Your task to perform on an android device: toggle pop-ups in chrome Image 0: 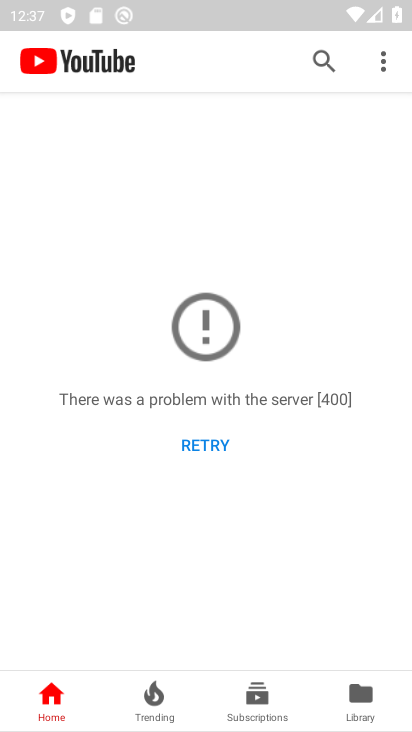
Step 0: press home button
Your task to perform on an android device: toggle pop-ups in chrome Image 1: 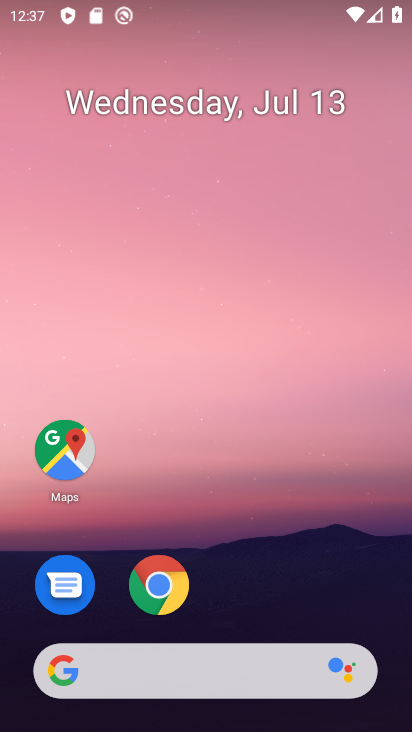
Step 1: click (165, 600)
Your task to perform on an android device: toggle pop-ups in chrome Image 2: 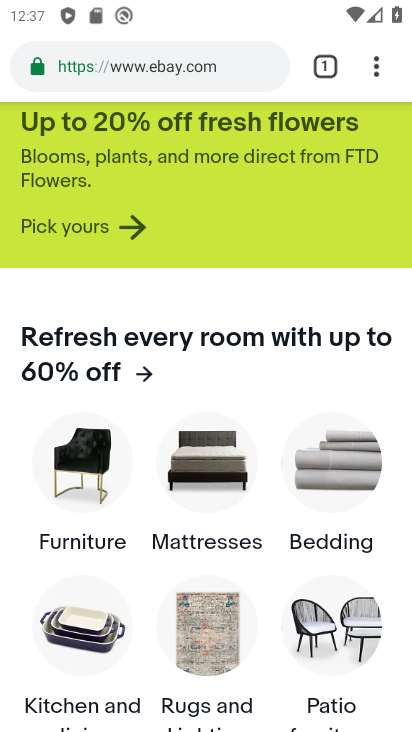
Step 2: drag from (376, 63) to (195, 596)
Your task to perform on an android device: toggle pop-ups in chrome Image 3: 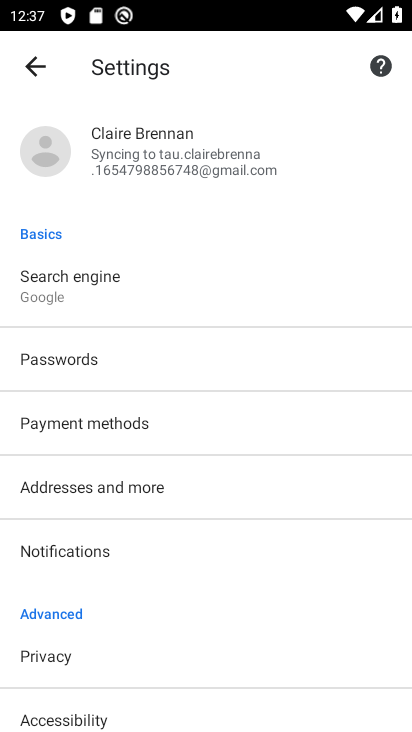
Step 3: drag from (194, 461) to (290, 59)
Your task to perform on an android device: toggle pop-ups in chrome Image 4: 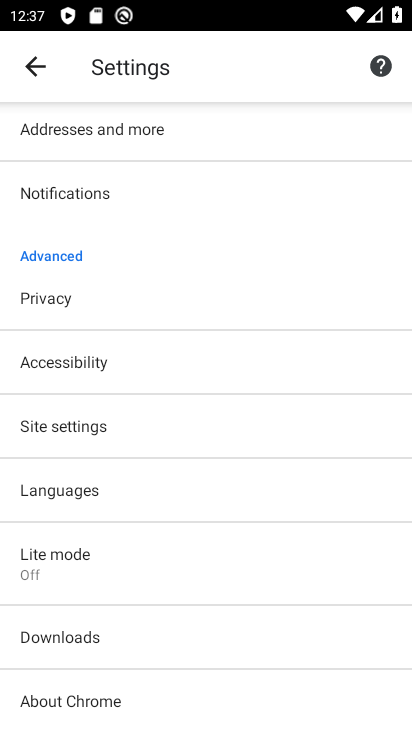
Step 4: click (125, 432)
Your task to perform on an android device: toggle pop-ups in chrome Image 5: 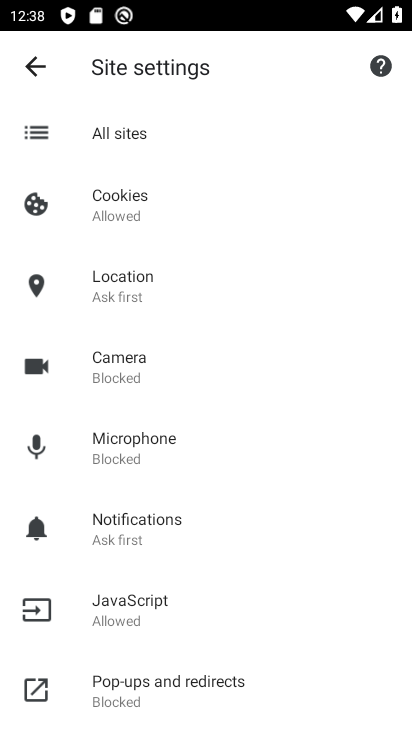
Step 5: click (146, 685)
Your task to perform on an android device: toggle pop-ups in chrome Image 6: 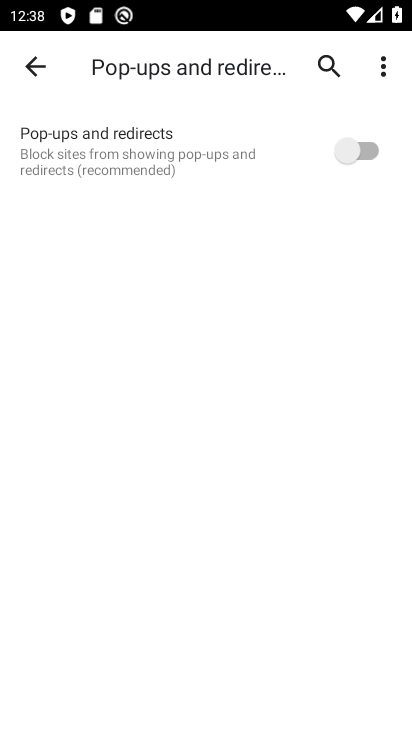
Step 6: click (369, 148)
Your task to perform on an android device: toggle pop-ups in chrome Image 7: 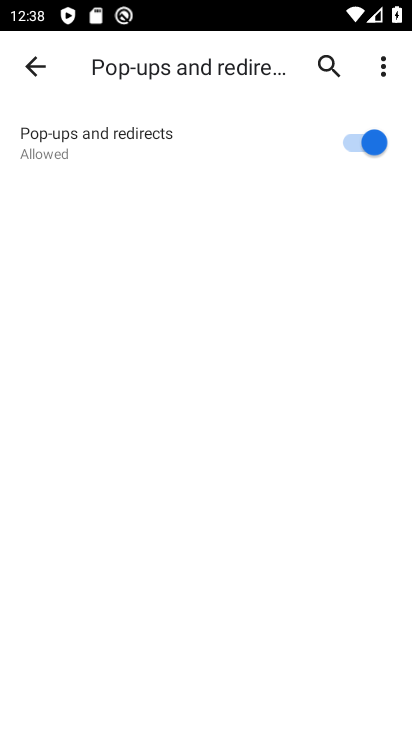
Step 7: task complete